Your task to perform on an android device: toggle notification dots Image 0: 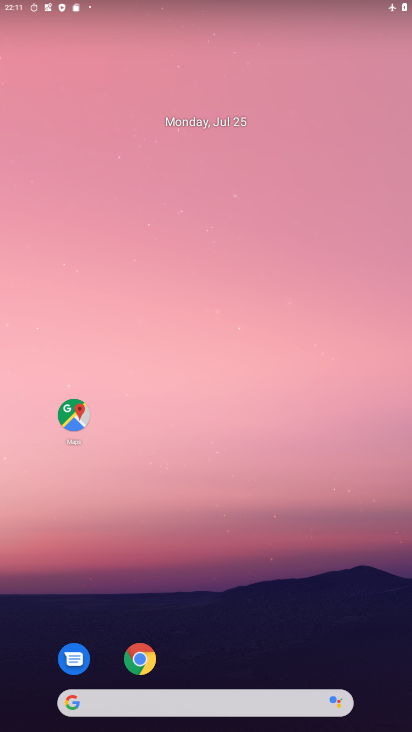
Step 0: drag from (195, 664) to (251, 276)
Your task to perform on an android device: toggle notification dots Image 1: 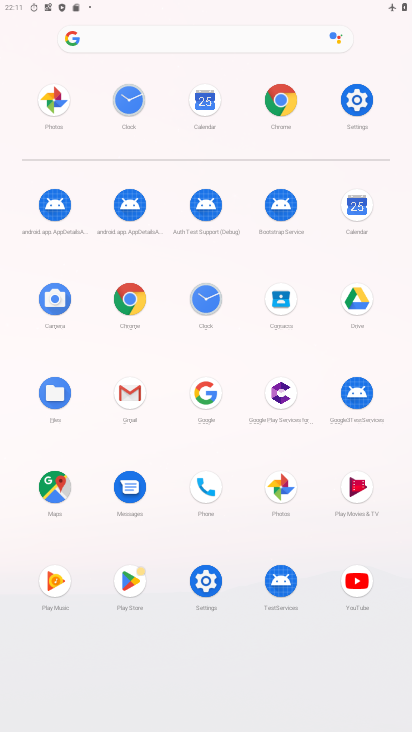
Step 1: click (354, 101)
Your task to perform on an android device: toggle notification dots Image 2: 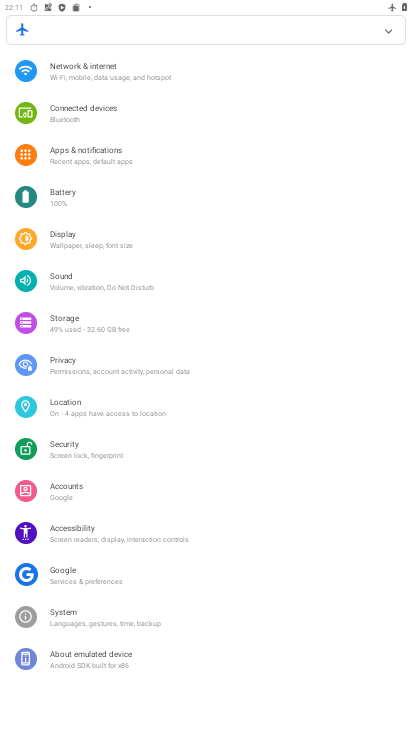
Step 2: click (170, 162)
Your task to perform on an android device: toggle notification dots Image 3: 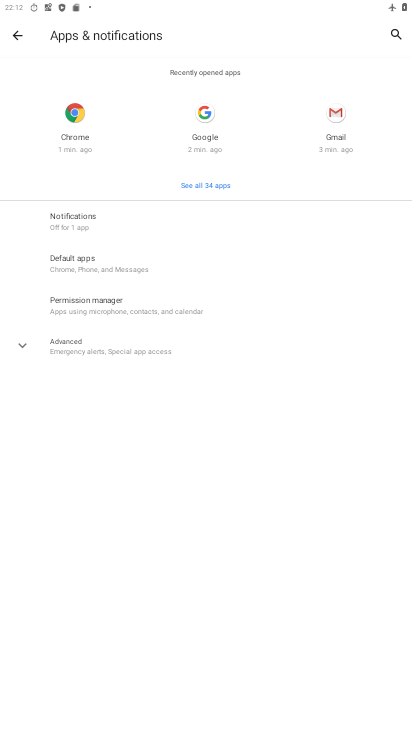
Step 3: click (127, 349)
Your task to perform on an android device: toggle notification dots Image 4: 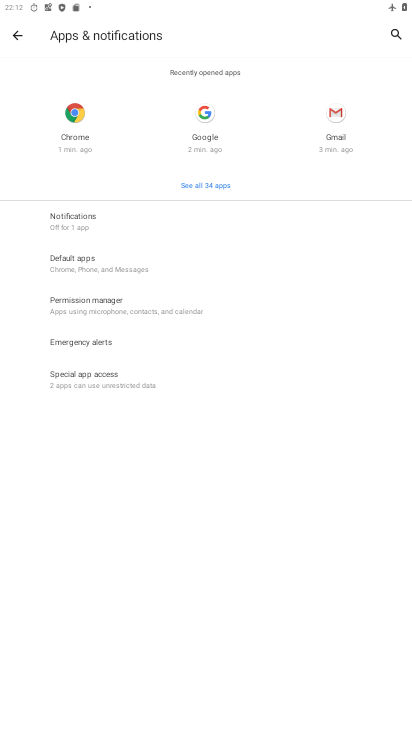
Step 4: click (111, 215)
Your task to perform on an android device: toggle notification dots Image 5: 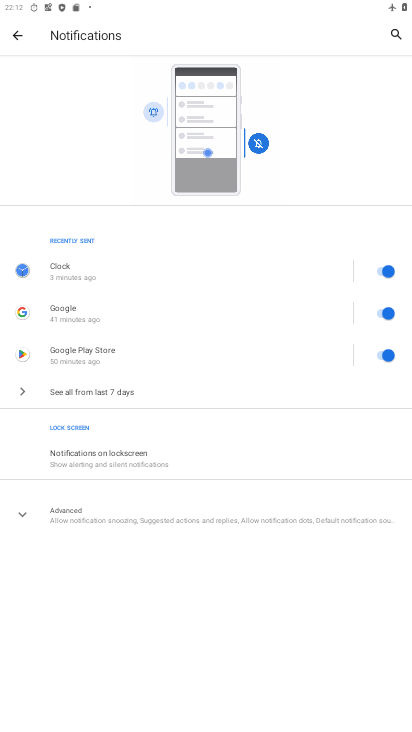
Step 5: click (165, 517)
Your task to perform on an android device: toggle notification dots Image 6: 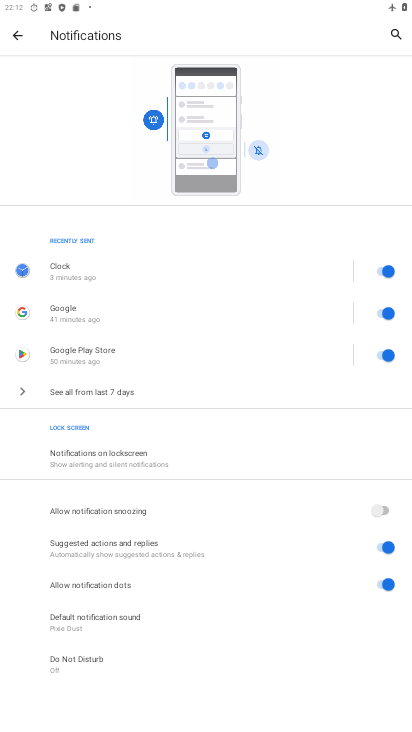
Step 6: click (375, 586)
Your task to perform on an android device: toggle notification dots Image 7: 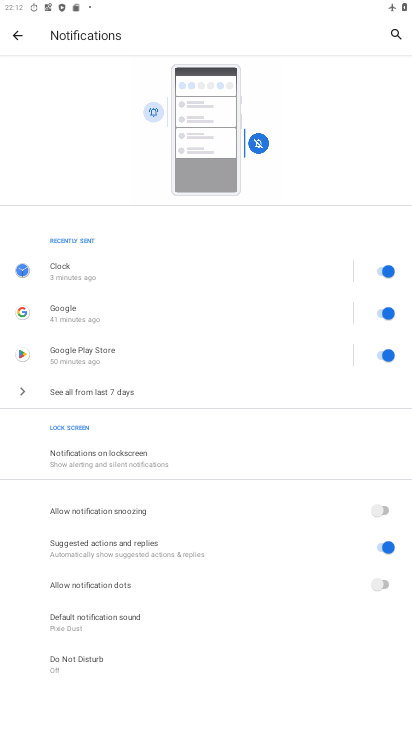
Step 7: task complete